Your task to perform on an android device: Open calendar and show me the second week of next month Image 0: 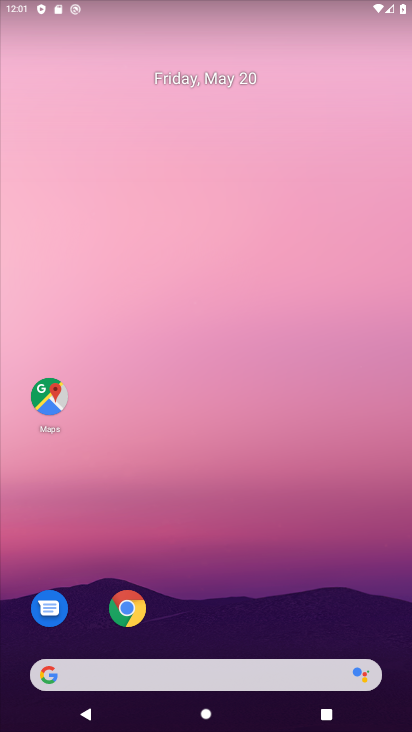
Step 0: drag from (288, 638) to (314, 126)
Your task to perform on an android device: Open calendar and show me the second week of next month Image 1: 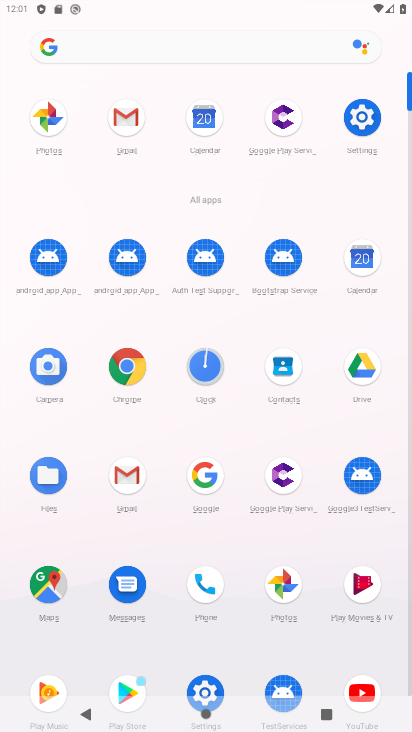
Step 1: click (366, 263)
Your task to perform on an android device: Open calendar and show me the second week of next month Image 2: 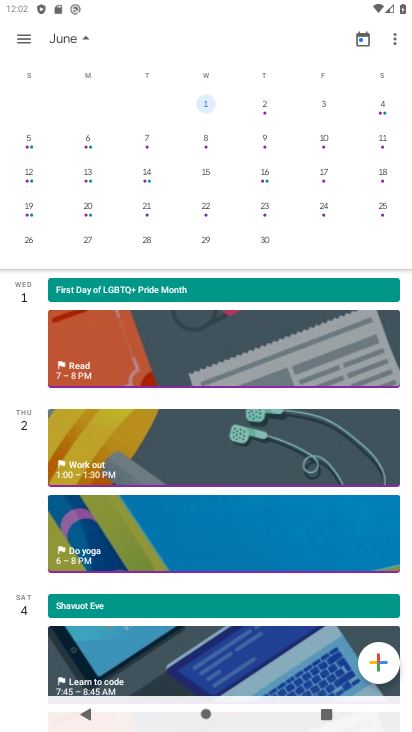
Step 2: click (28, 144)
Your task to perform on an android device: Open calendar and show me the second week of next month Image 3: 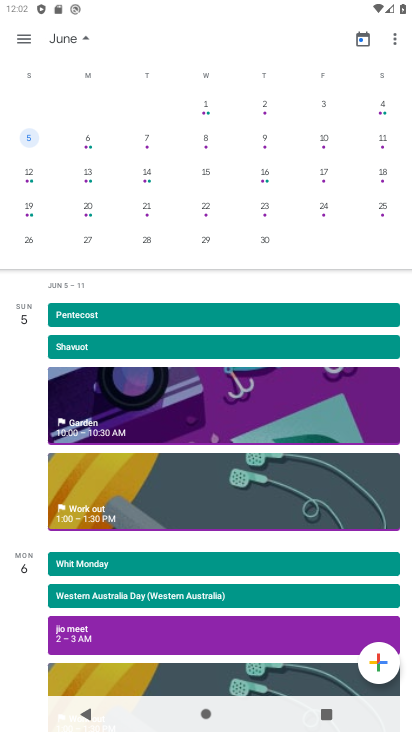
Step 3: task complete